Your task to perform on an android device: change your default location settings in chrome Image 0: 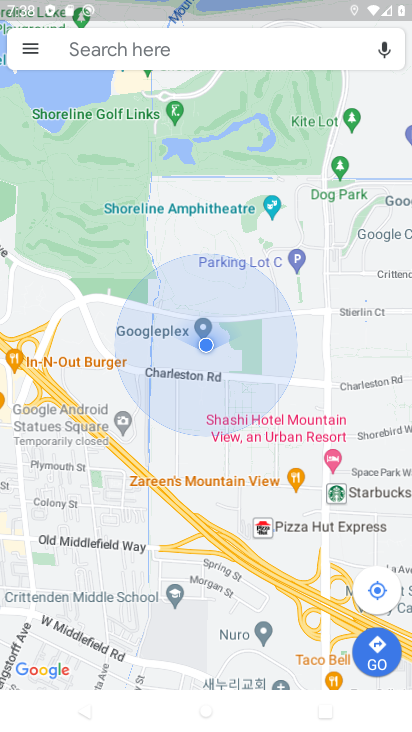
Step 0: press home button
Your task to perform on an android device: change your default location settings in chrome Image 1: 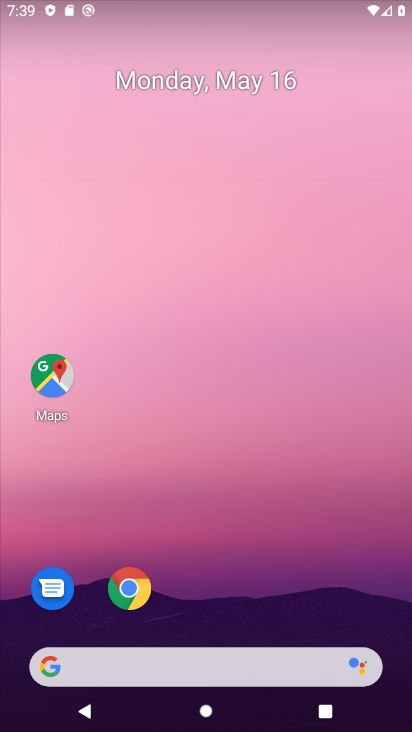
Step 1: drag from (359, 586) to (357, 121)
Your task to perform on an android device: change your default location settings in chrome Image 2: 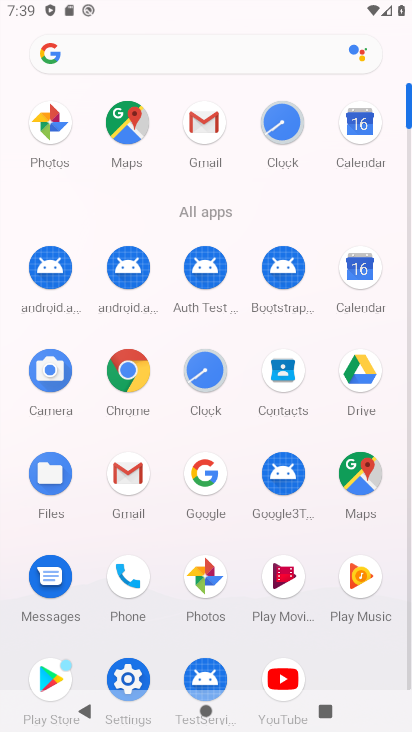
Step 2: click (122, 379)
Your task to perform on an android device: change your default location settings in chrome Image 3: 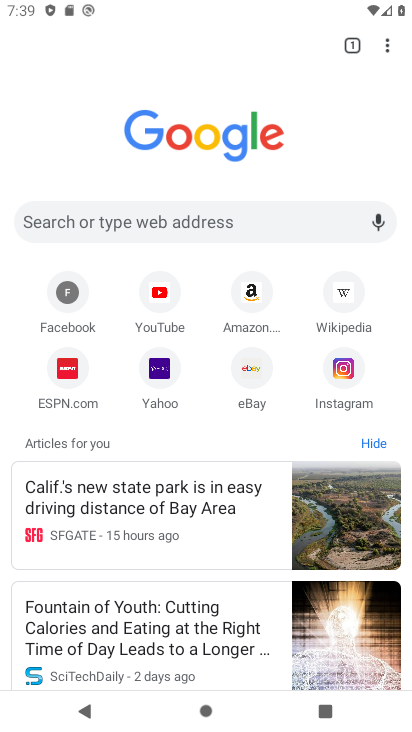
Step 3: click (388, 49)
Your task to perform on an android device: change your default location settings in chrome Image 4: 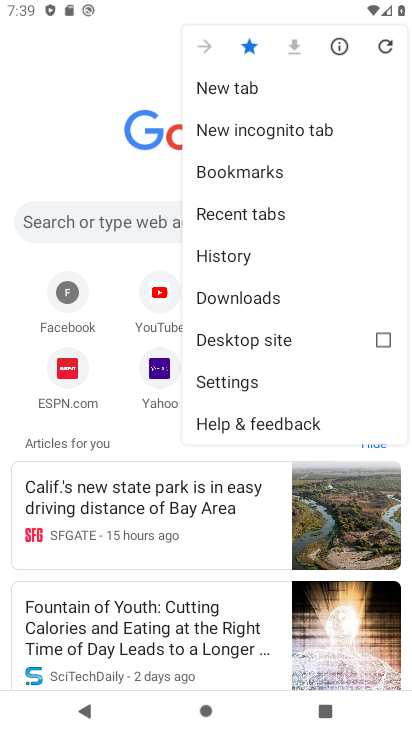
Step 4: click (250, 388)
Your task to perform on an android device: change your default location settings in chrome Image 5: 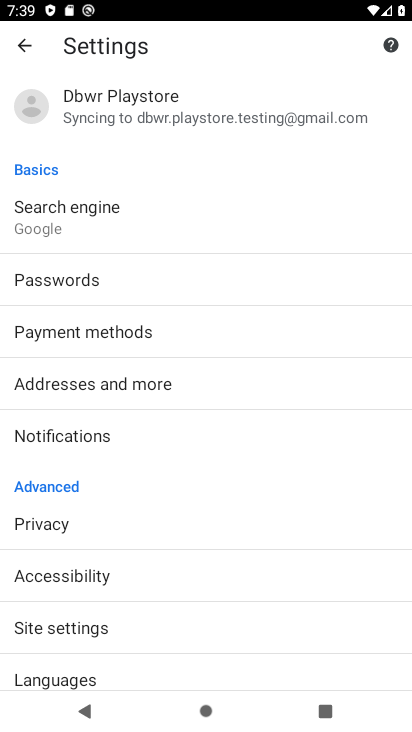
Step 5: drag from (267, 646) to (303, 461)
Your task to perform on an android device: change your default location settings in chrome Image 6: 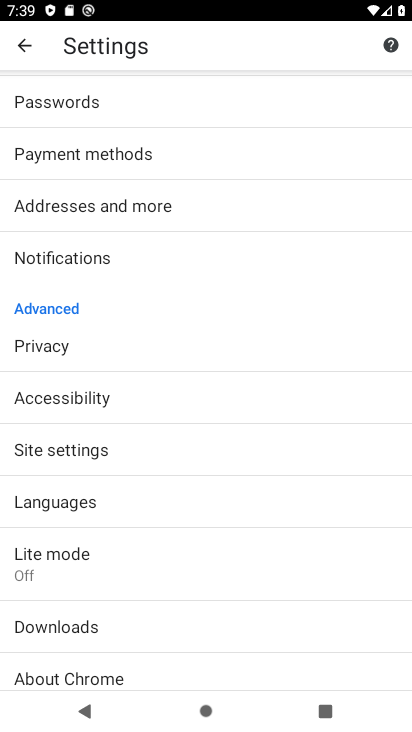
Step 6: drag from (269, 666) to (275, 488)
Your task to perform on an android device: change your default location settings in chrome Image 7: 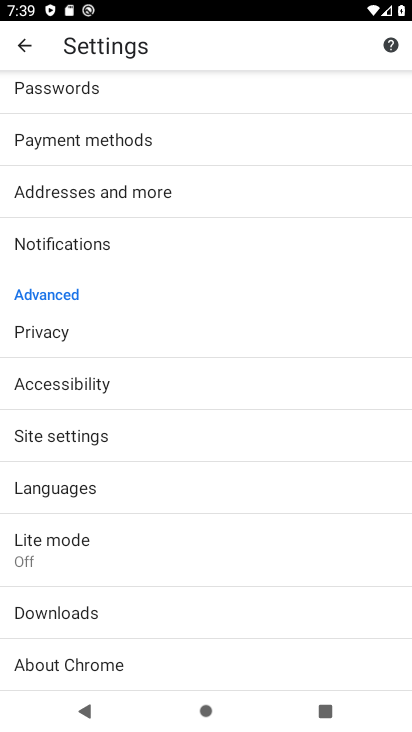
Step 7: drag from (243, 604) to (254, 419)
Your task to perform on an android device: change your default location settings in chrome Image 8: 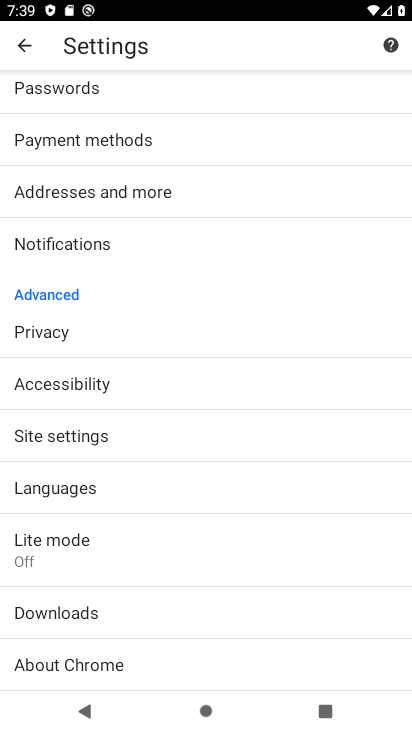
Step 8: drag from (284, 238) to (258, 451)
Your task to perform on an android device: change your default location settings in chrome Image 9: 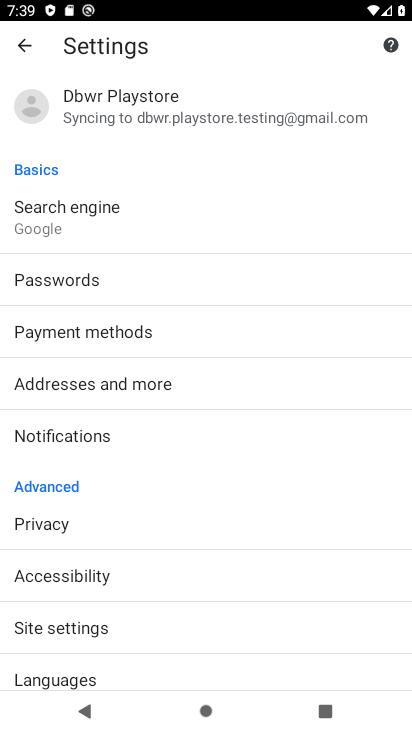
Step 9: drag from (275, 264) to (255, 534)
Your task to perform on an android device: change your default location settings in chrome Image 10: 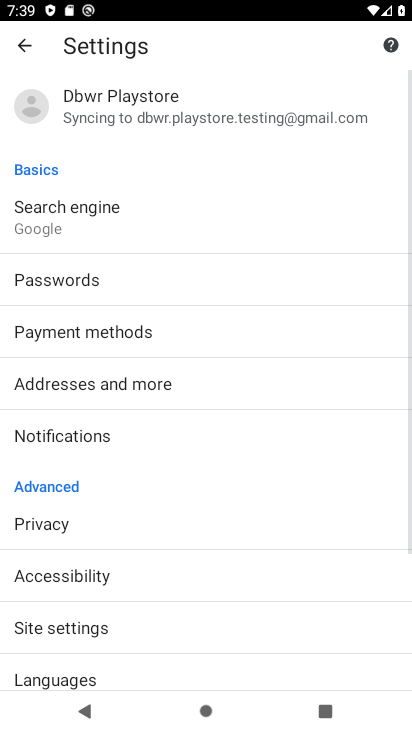
Step 10: drag from (257, 590) to (279, 404)
Your task to perform on an android device: change your default location settings in chrome Image 11: 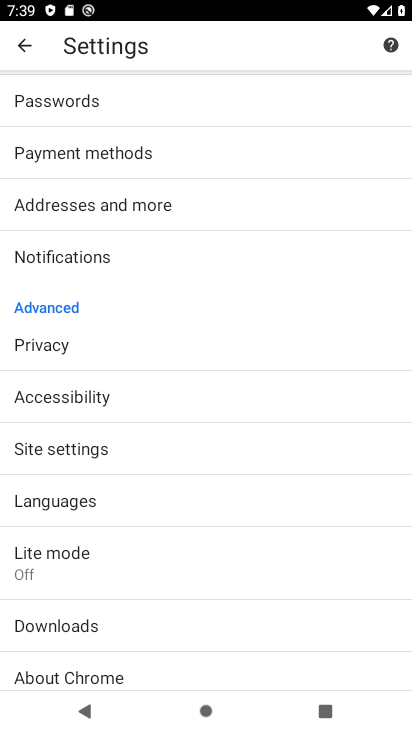
Step 11: click (175, 459)
Your task to perform on an android device: change your default location settings in chrome Image 12: 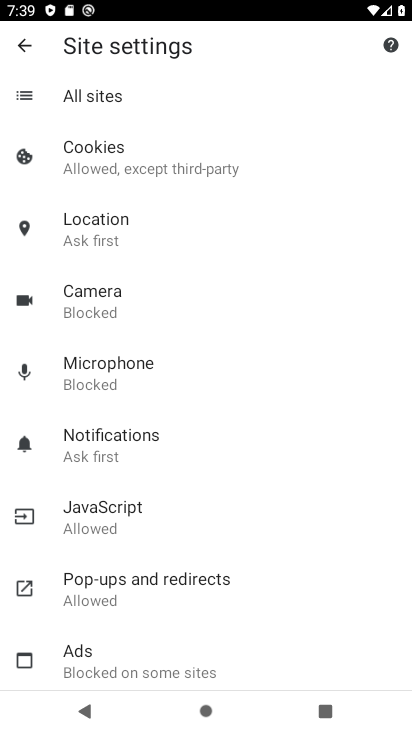
Step 12: drag from (346, 561) to (341, 387)
Your task to perform on an android device: change your default location settings in chrome Image 13: 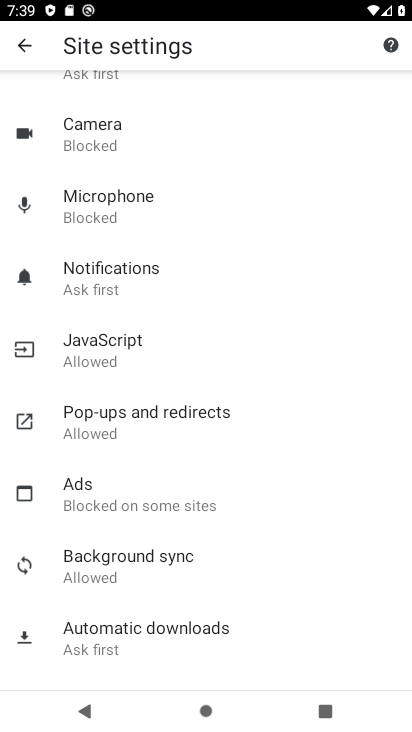
Step 13: drag from (329, 609) to (331, 431)
Your task to perform on an android device: change your default location settings in chrome Image 14: 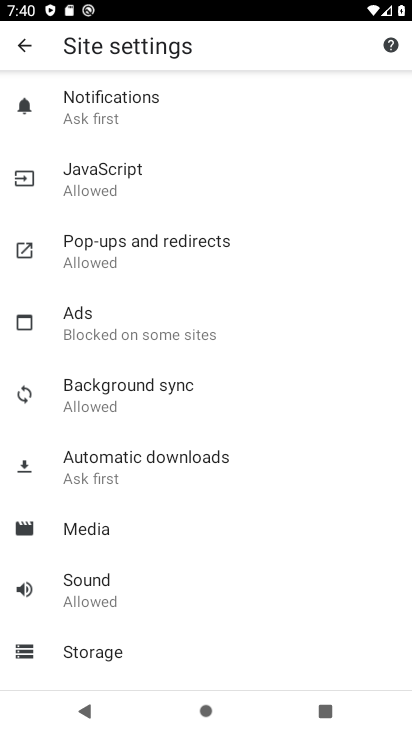
Step 14: drag from (316, 626) to (308, 428)
Your task to perform on an android device: change your default location settings in chrome Image 15: 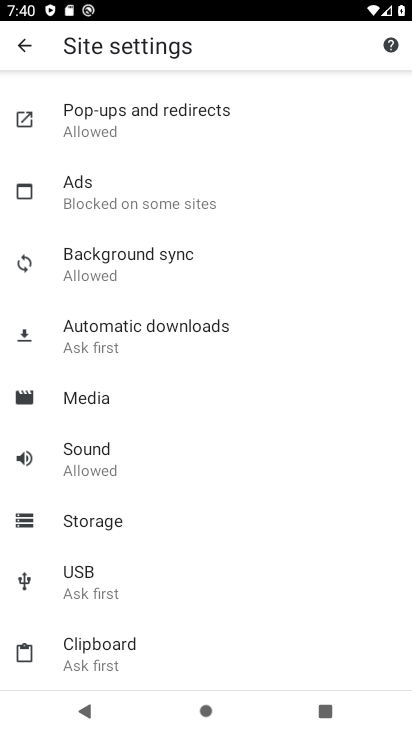
Step 15: drag from (312, 613) to (313, 482)
Your task to perform on an android device: change your default location settings in chrome Image 16: 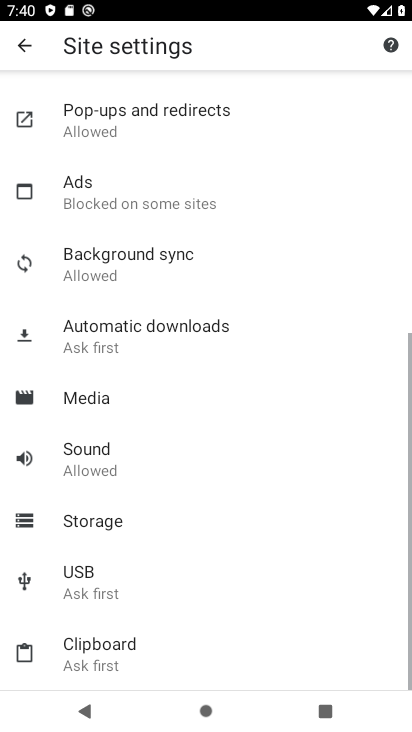
Step 16: drag from (331, 377) to (319, 517)
Your task to perform on an android device: change your default location settings in chrome Image 17: 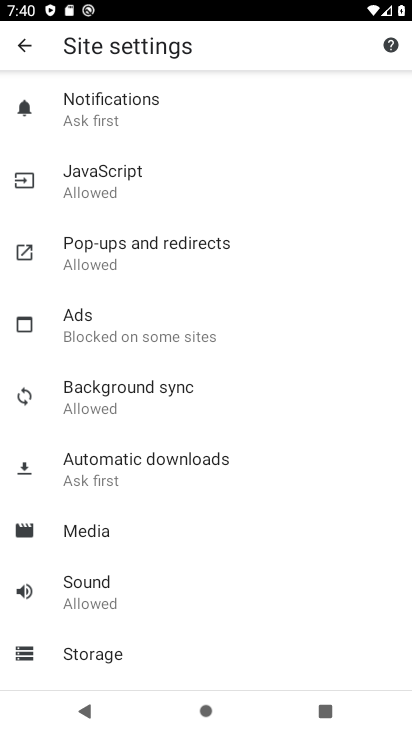
Step 17: drag from (330, 299) to (340, 453)
Your task to perform on an android device: change your default location settings in chrome Image 18: 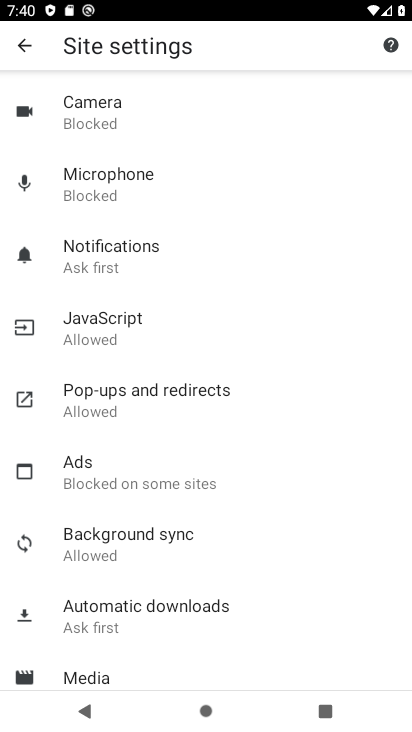
Step 18: drag from (346, 284) to (348, 516)
Your task to perform on an android device: change your default location settings in chrome Image 19: 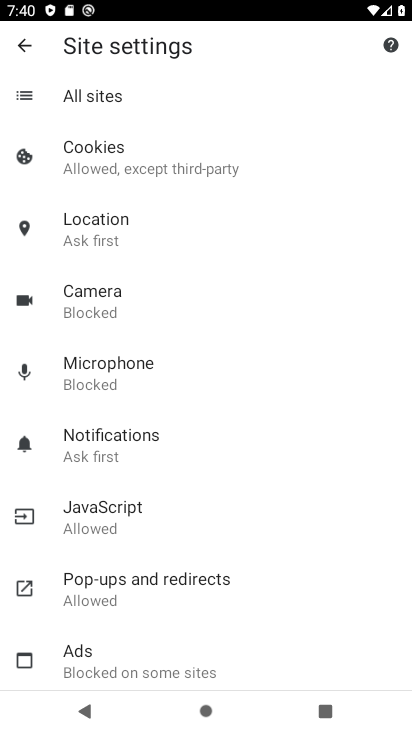
Step 19: click (115, 233)
Your task to perform on an android device: change your default location settings in chrome Image 20: 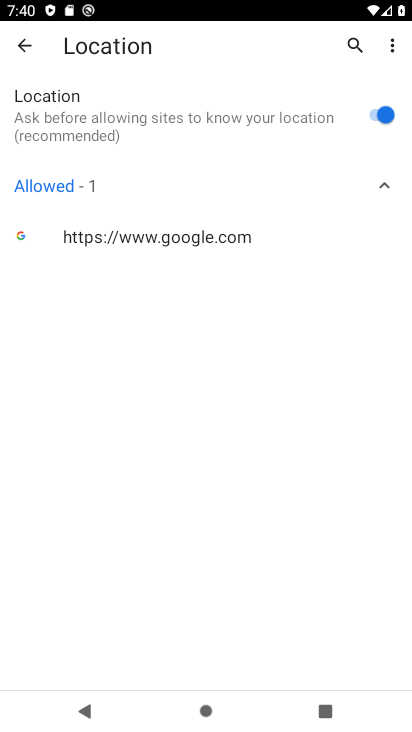
Step 20: click (381, 107)
Your task to perform on an android device: change your default location settings in chrome Image 21: 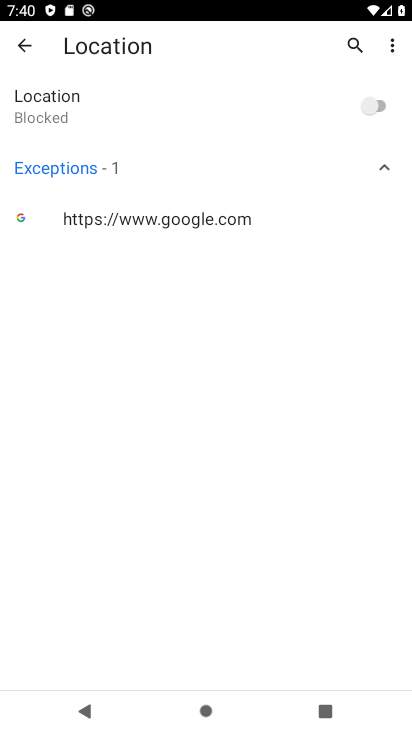
Step 21: task complete